Your task to perform on an android device: Go to Google maps Image 0: 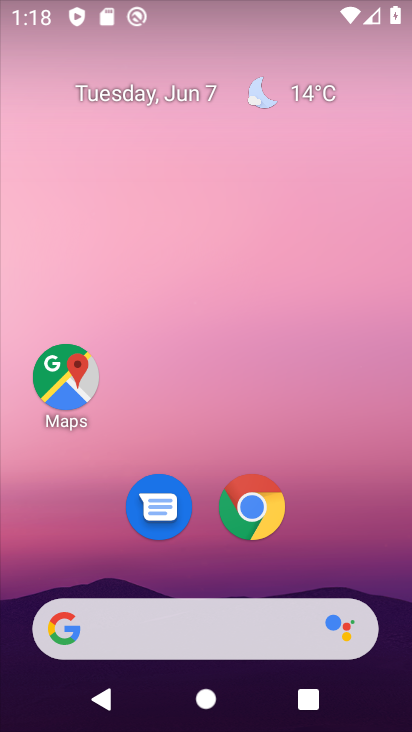
Step 0: click (76, 378)
Your task to perform on an android device: Go to Google maps Image 1: 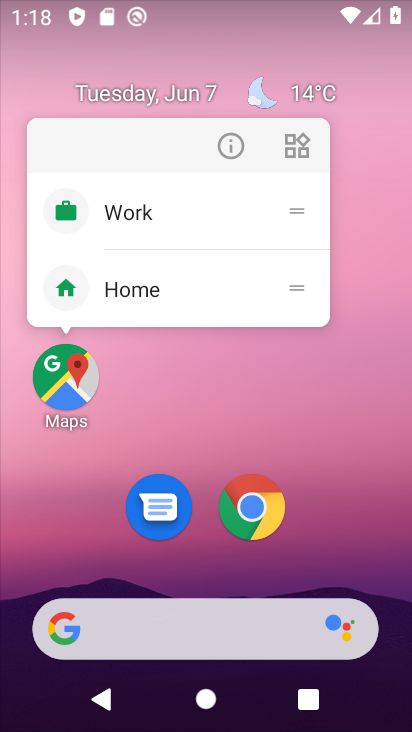
Step 1: click (74, 380)
Your task to perform on an android device: Go to Google maps Image 2: 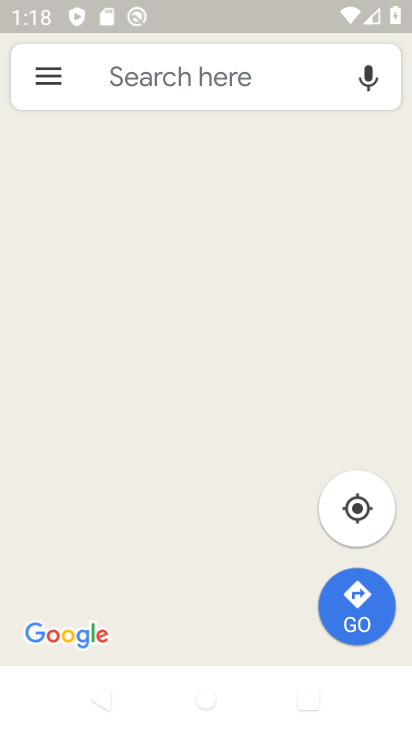
Step 2: task complete